Your task to perform on an android device: toggle location history Image 0: 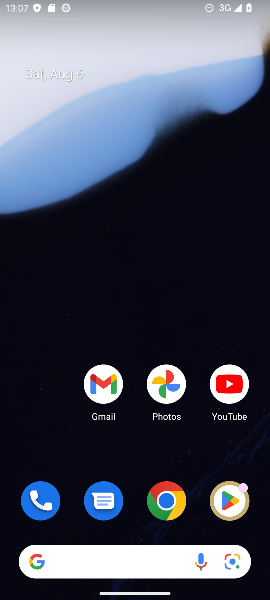
Step 0: drag from (137, 410) to (143, 170)
Your task to perform on an android device: toggle location history Image 1: 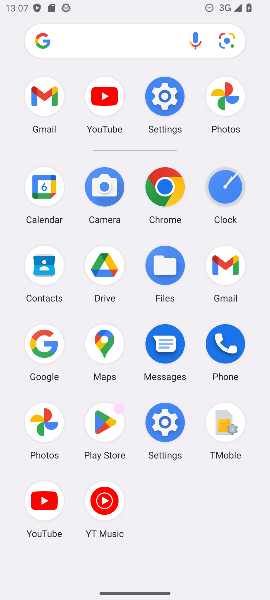
Step 1: click (164, 421)
Your task to perform on an android device: toggle location history Image 2: 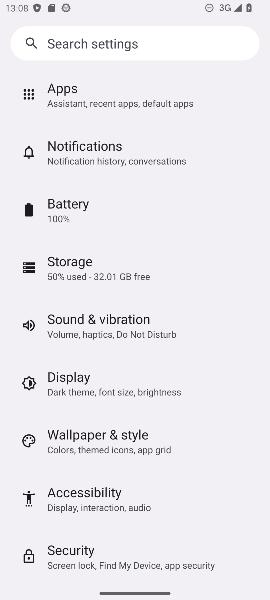
Step 2: drag from (120, 492) to (115, 152)
Your task to perform on an android device: toggle location history Image 3: 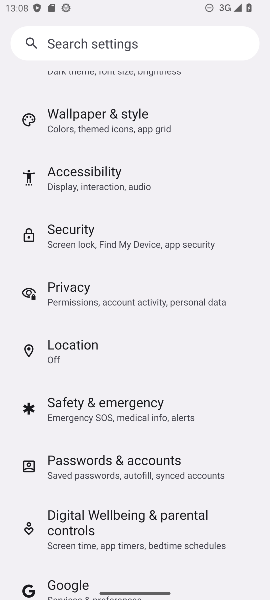
Step 3: drag from (108, 521) to (86, 183)
Your task to perform on an android device: toggle location history Image 4: 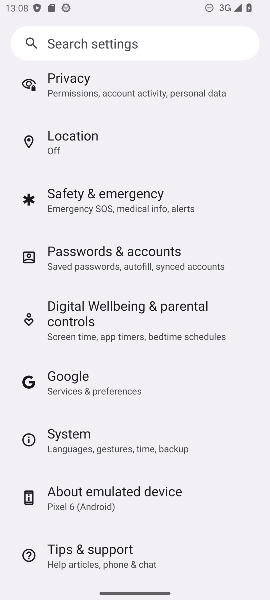
Step 4: drag from (107, 509) to (107, 198)
Your task to perform on an android device: toggle location history Image 5: 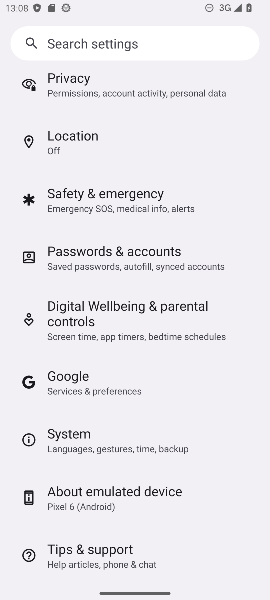
Step 5: click (83, 150)
Your task to perform on an android device: toggle location history Image 6: 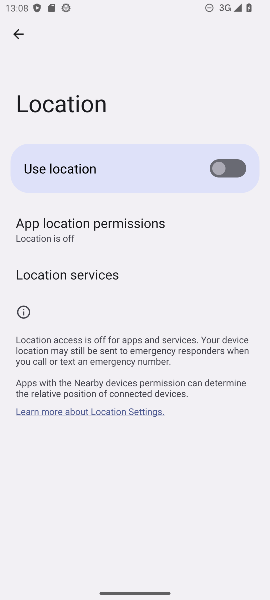
Step 6: click (103, 274)
Your task to perform on an android device: toggle location history Image 7: 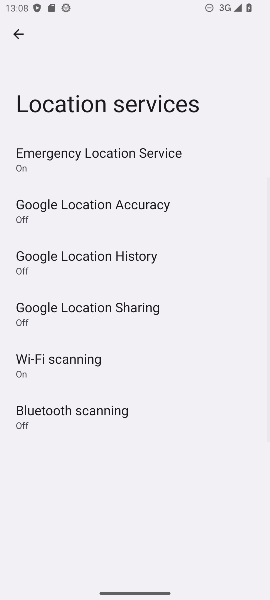
Step 7: click (88, 252)
Your task to perform on an android device: toggle location history Image 8: 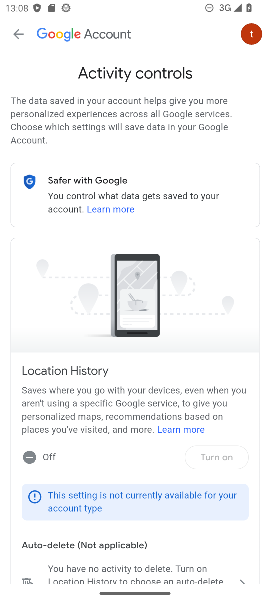
Step 8: click (226, 454)
Your task to perform on an android device: toggle location history Image 9: 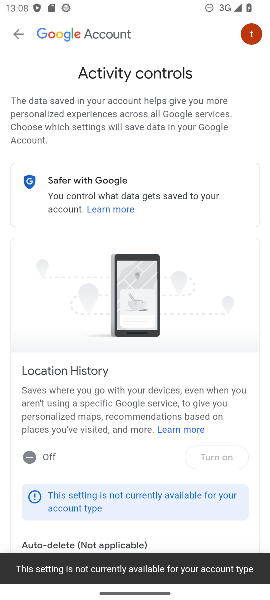
Step 9: task complete